Your task to perform on an android device: see tabs open on other devices in the chrome app Image 0: 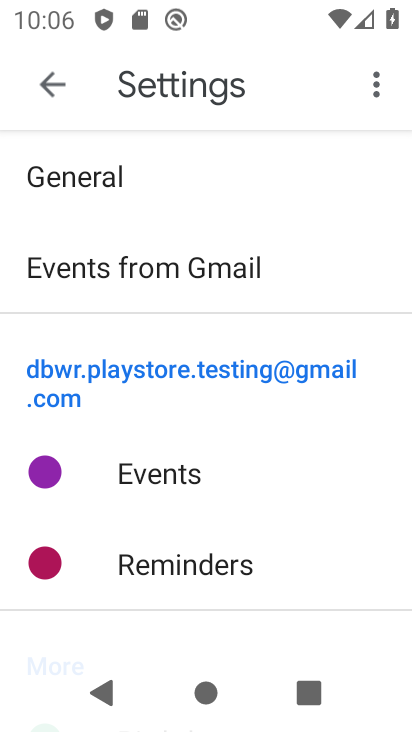
Step 0: press back button
Your task to perform on an android device: see tabs open on other devices in the chrome app Image 1: 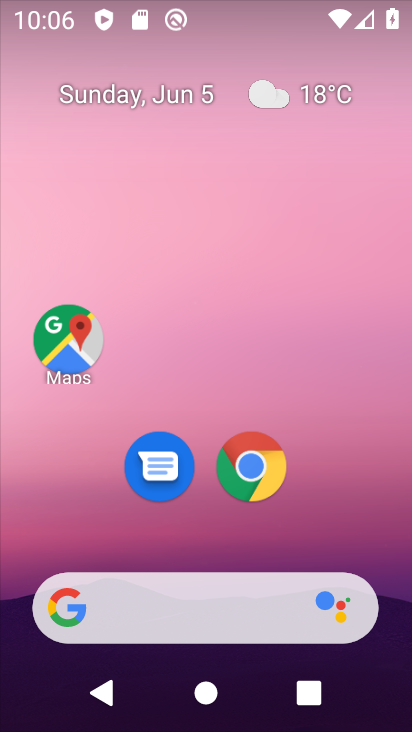
Step 1: click (257, 468)
Your task to perform on an android device: see tabs open on other devices in the chrome app Image 2: 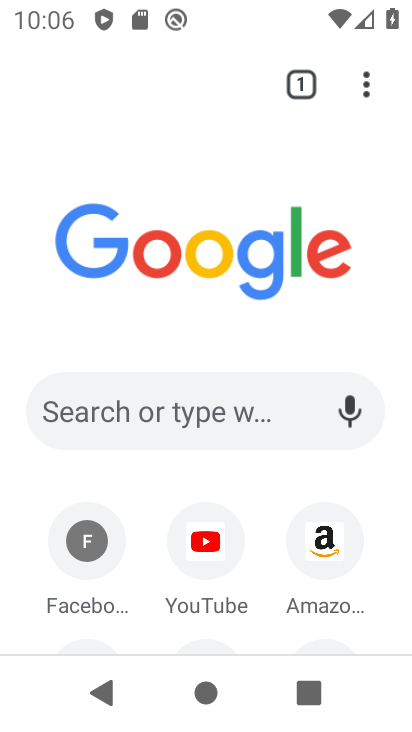
Step 2: click (365, 85)
Your task to perform on an android device: see tabs open on other devices in the chrome app Image 3: 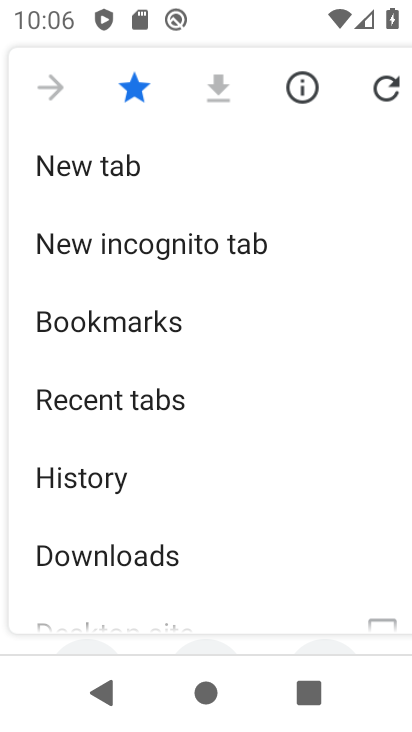
Step 3: drag from (118, 521) to (153, 444)
Your task to perform on an android device: see tabs open on other devices in the chrome app Image 4: 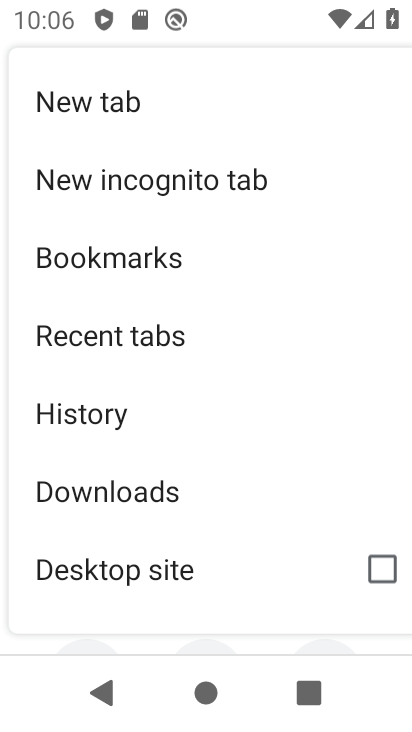
Step 4: drag from (110, 538) to (179, 439)
Your task to perform on an android device: see tabs open on other devices in the chrome app Image 5: 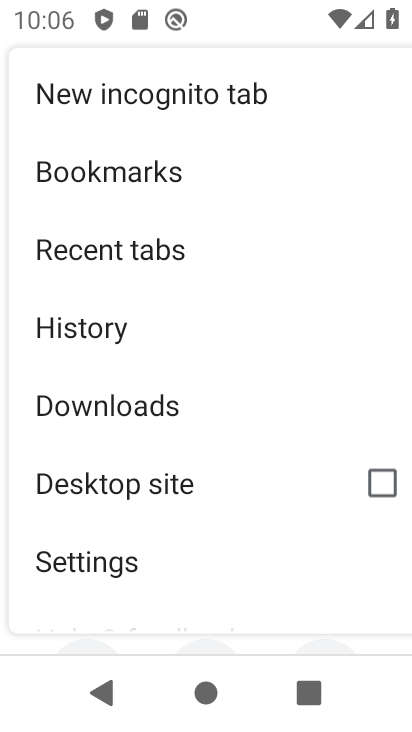
Step 5: drag from (108, 525) to (168, 412)
Your task to perform on an android device: see tabs open on other devices in the chrome app Image 6: 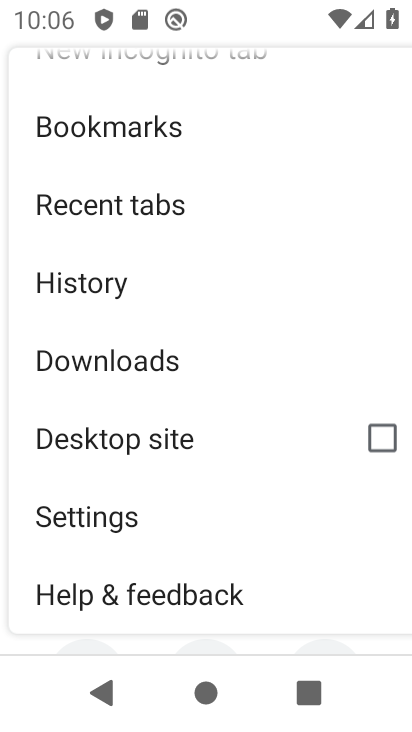
Step 6: click (118, 199)
Your task to perform on an android device: see tabs open on other devices in the chrome app Image 7: 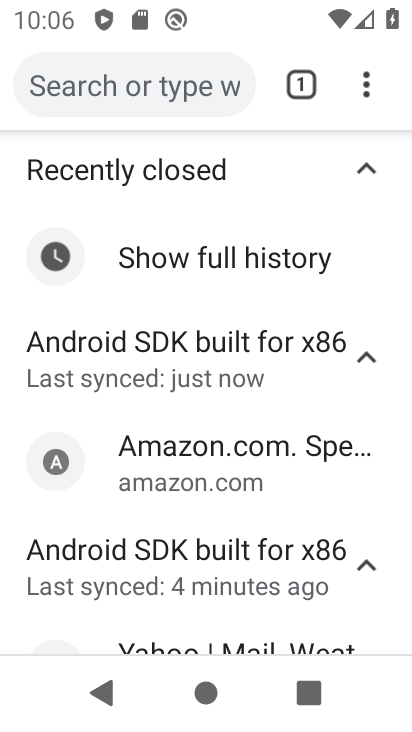
Step 7: task complete